Your task to perform on an android device: see tabs open on other devices in the chrome app Image 0: 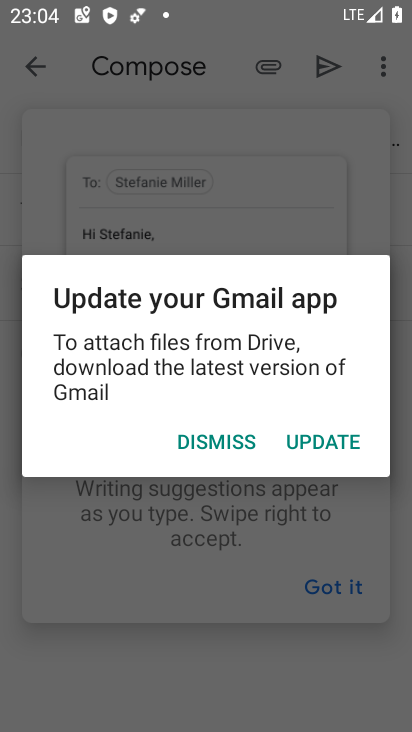
Step 0: press home button
Your task to perform on an android device: see tabs open on other devices in the chrome app Image 1: 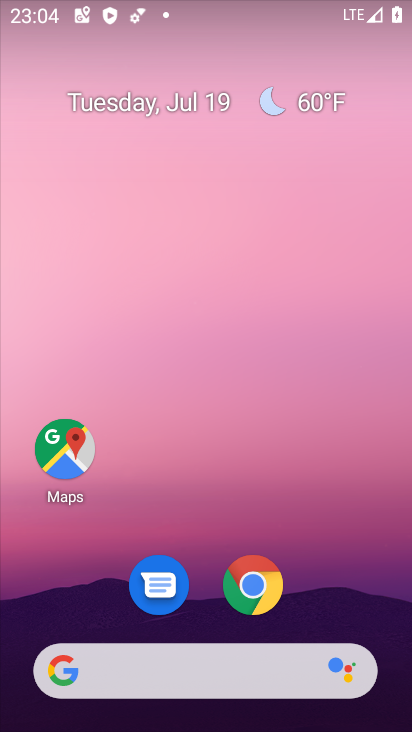
Step 1: click (259, 579)
Your task to perform on an android device: see tabs open on other devices in the chrome app Image 2: 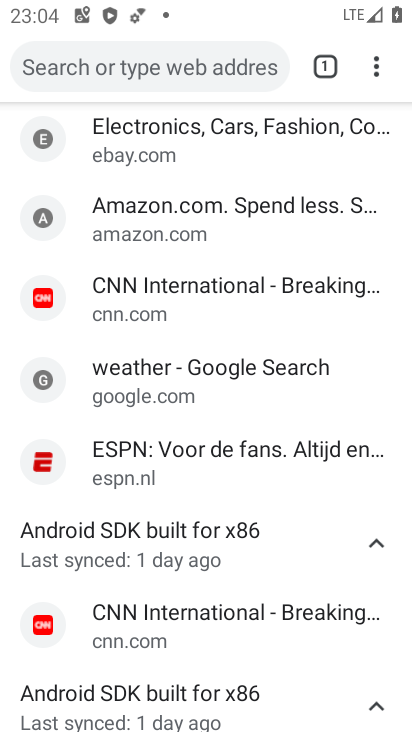
Step 2: click (380, 56)
Your task to perform on an android device: see tabs open on other devices in the chrome app Image 3: 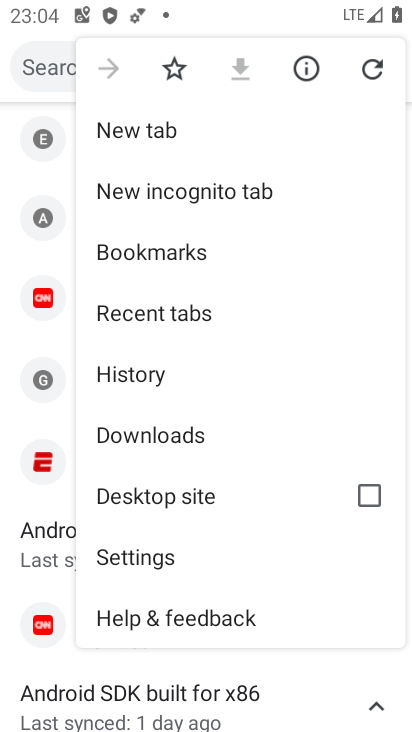
Step 3: click (173, 324)
Your task to perform on an android device: see tabs open on other devices in the chrome app Image 4: 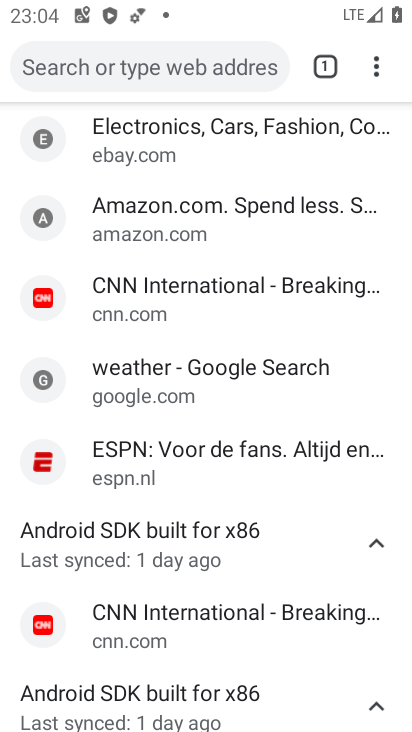
Step 4: task complete